Your task to perform on an android device: Go to eBay Image 0: 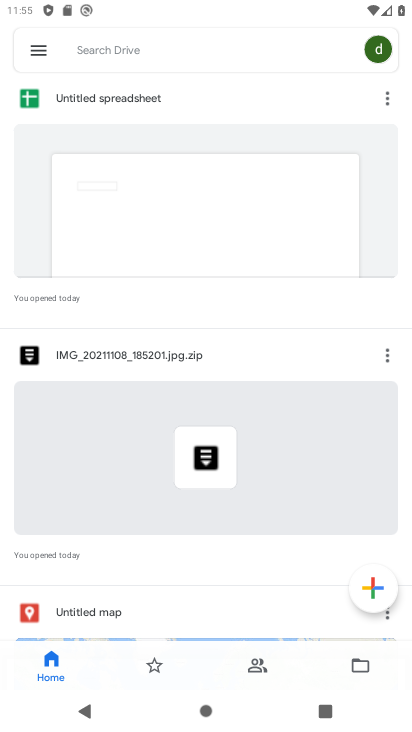
Step 0: press home button
Your task to perform on an android device: Go to eBay Image 1: 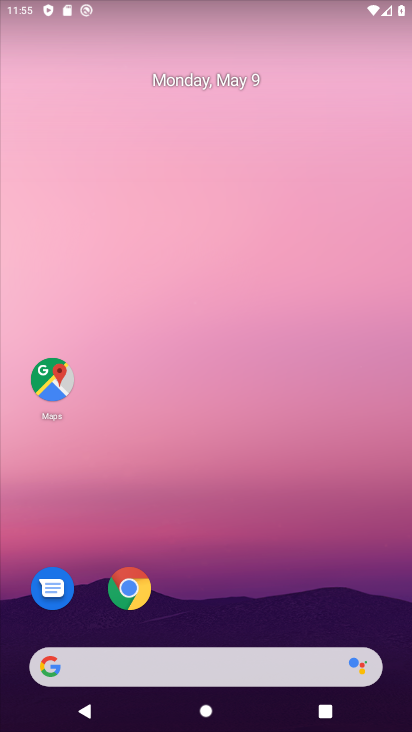
Step 1: click (223, 667)
Your task to perform on an android device: Go to eBay Image 2: 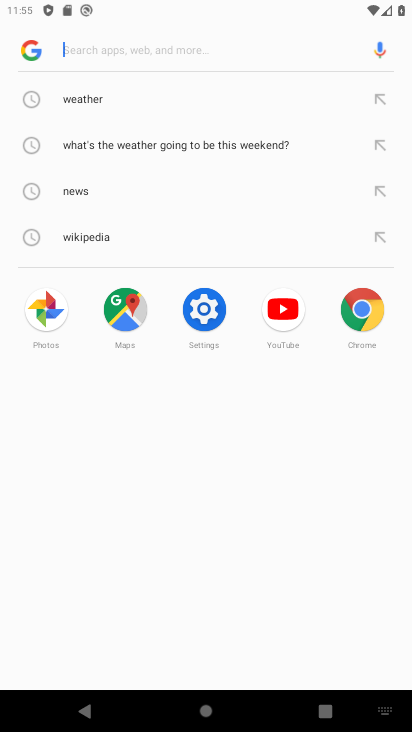
Step 2: type "ebay"
Your task to perform on an android device: Go to eBay Image 3: 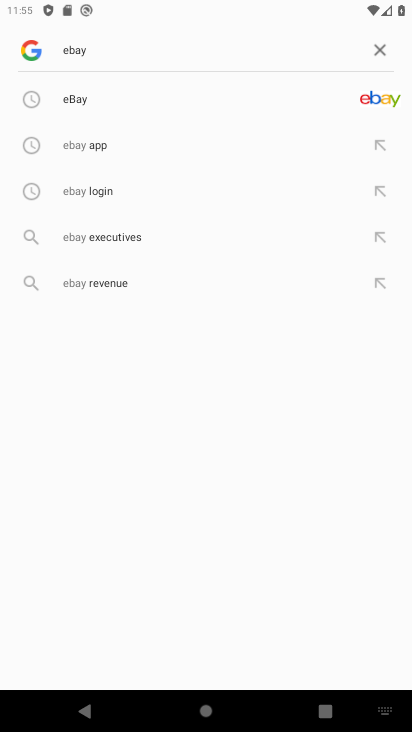
Step 3: click (78, 96)
Your task to perform on an android device: Go to eBay Image 4: 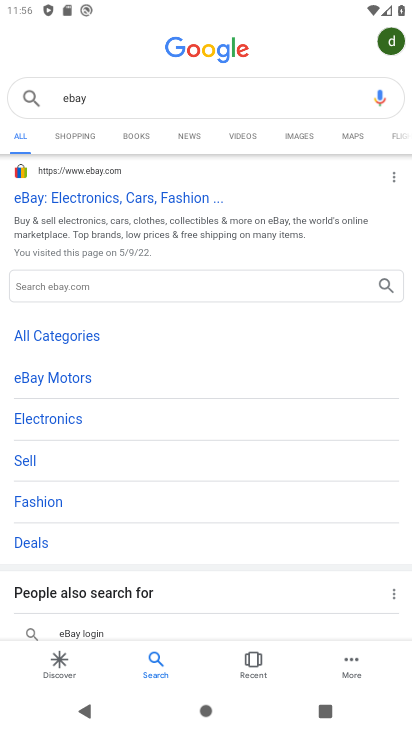
Step 4: click (64, 183)
Your task to perform on an android device: Go to eBay Image 5: 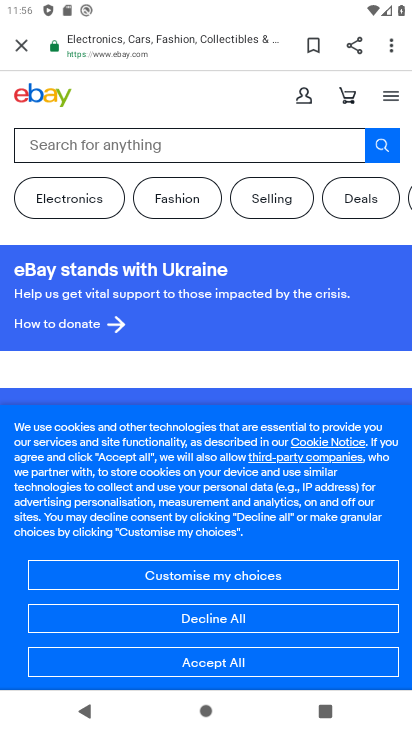
Step 5: task complete